Your task to perform on an android device: find which apps use the phone's location Image 0: 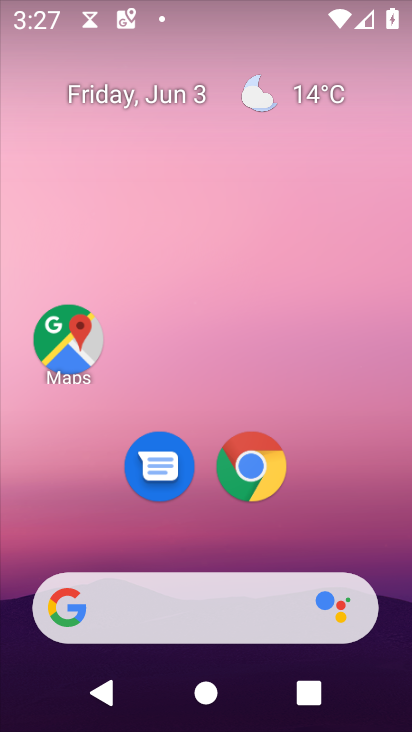
Step 0: drag from (332, 501) to (271, 162)
Your task to perform on an android device: find which apps use the phone's location Image 1: 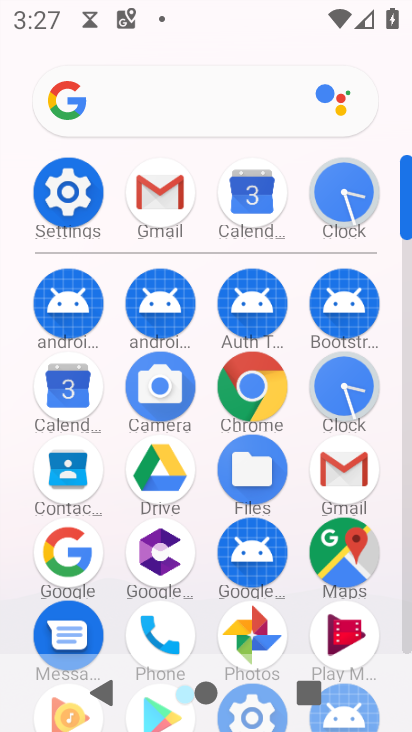
Step 1: click (65, 197)
Your task to perform on an android device: find which apps use the phone's location Image 2: 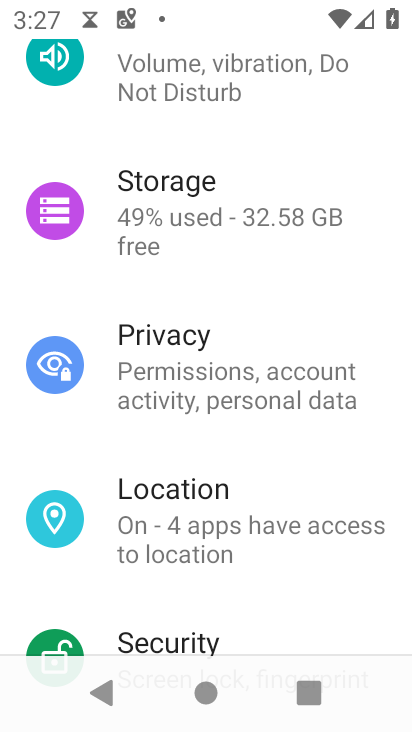
Step 2: click (140, 500)
Your task to perform on an android device: find which apps use the phone's location Image 3: 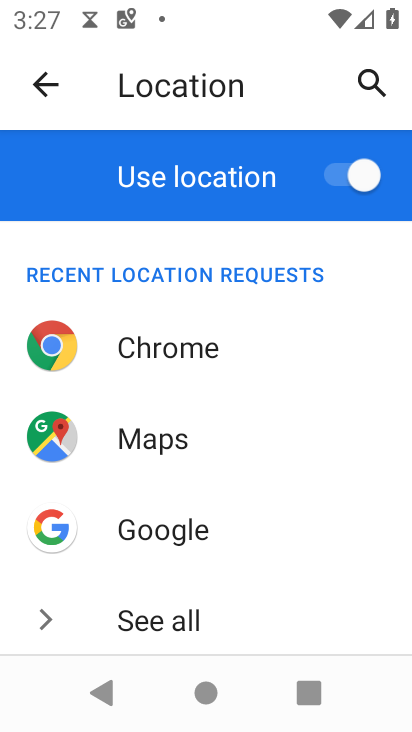
Step 3: drag from (263, 496) to (158, 153)
Your task to perform on an android device: find which apps use the phone's location Image 4: 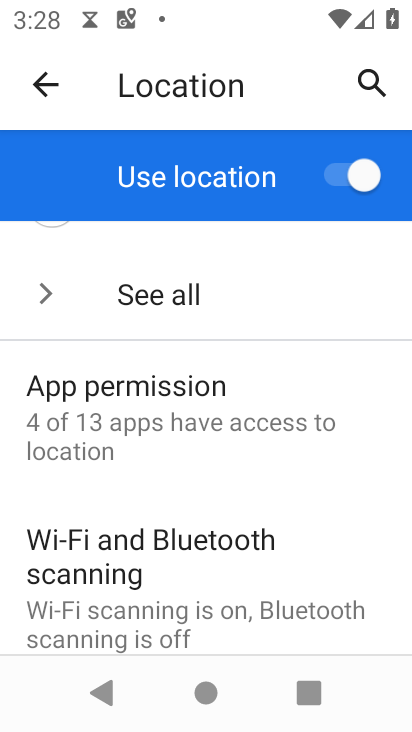
Step 4: drag from (193, 399) to (177, 155)
Your task to perform on an android device: find which apps use the phone's location Image 5: 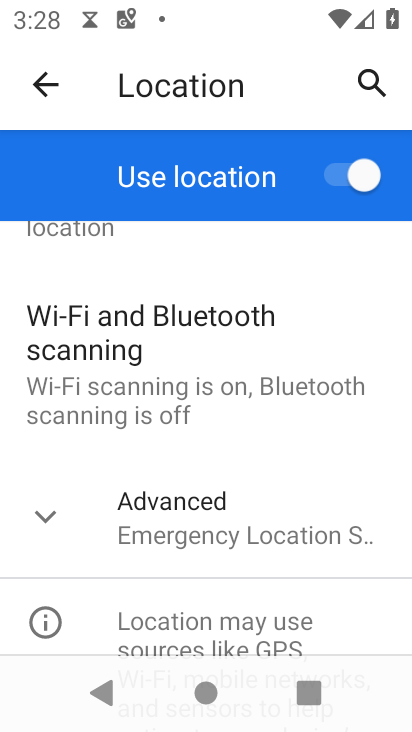
Step 5: drag from (203, 491) to (190, 186)
Your task to perform on an android device: find which apps use the phone's location Image 6: 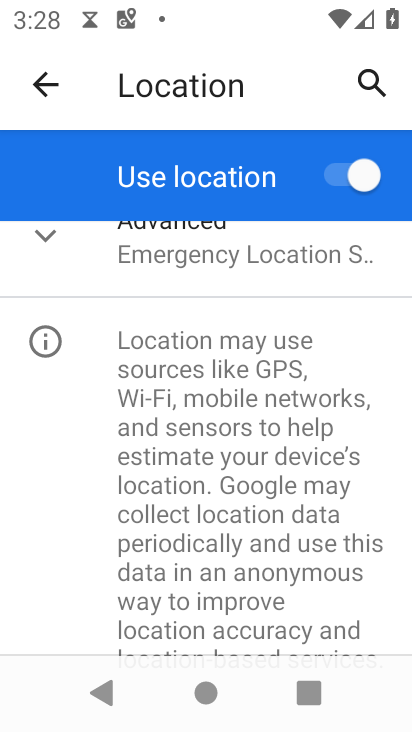
Step 6: press back button
Your task to perform on an android device: find which apps use the phone's location Image 7: 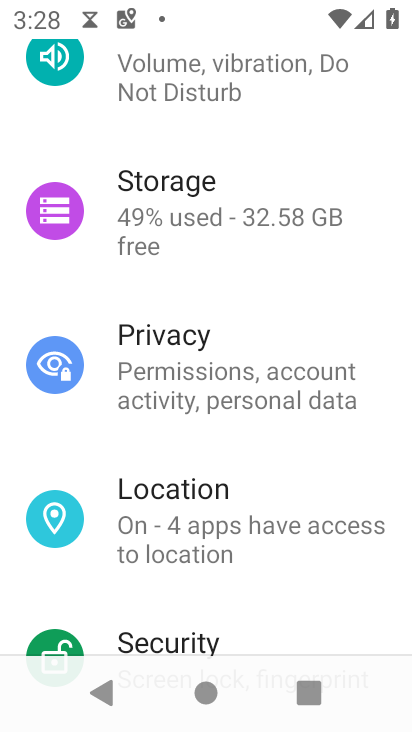
Step 7: press back button
Your task to perform on an android device: find which apps use the phone's location Image 8: 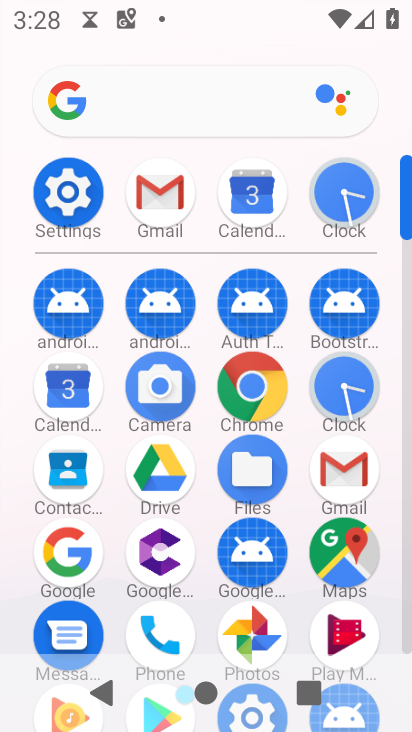
Step 8: drag from (211, 584) to (196, 173)
Your task to perform on an android device: find which apps use the phone's location Image 9: 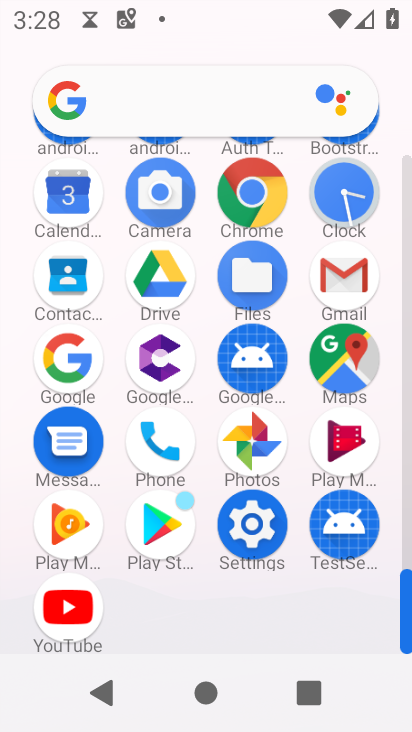
Step 9: click (166, 505)
Your task to perform on an android device: find which apps use the phone's location Image 10: 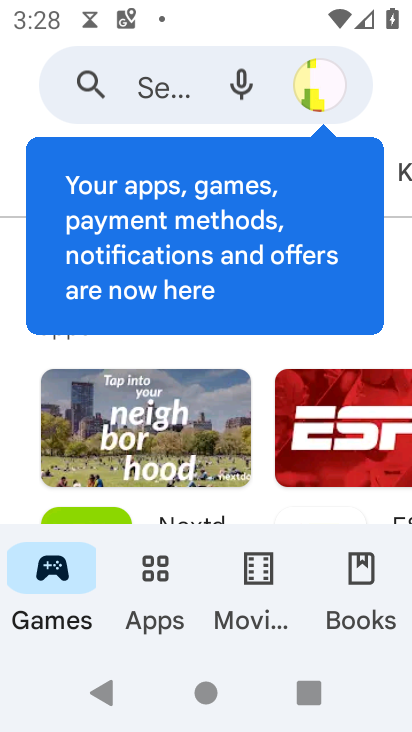
Step 10: click (142, 87)
Your task to perform on an android device: find which apps use the phone's location Image 11: 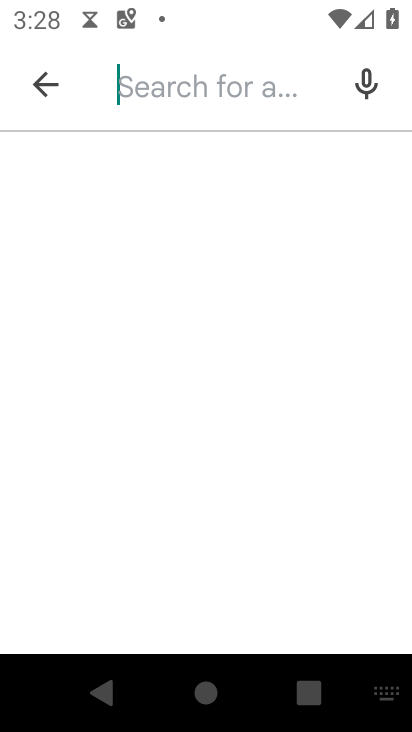
Step 11: type "phone location "
Your task to perform on an android device: find which apps use the phone's location Image 12: 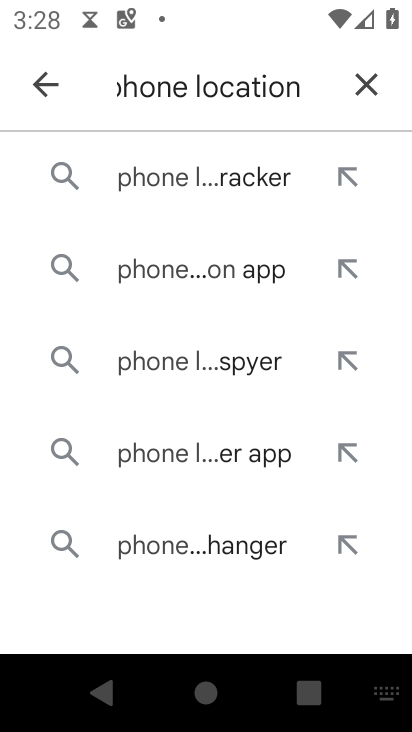
Step 12: click (231, 270)
Your task to perform on an android device: find which apps use the phone's location Image 13: 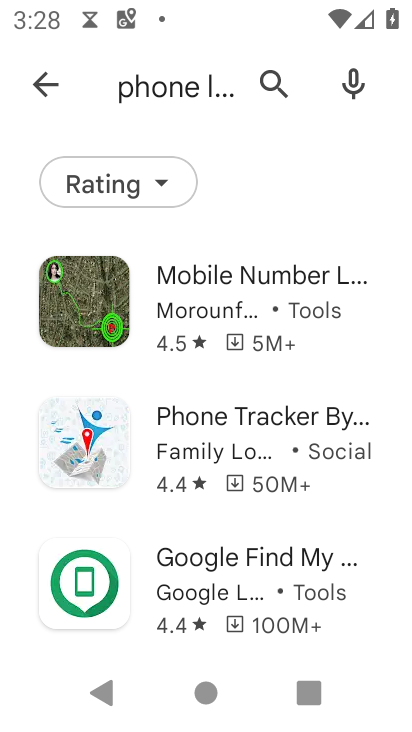
Step 13: task complete